Your task to perform on an android device: Show me popular games on the Play Store Image 0: 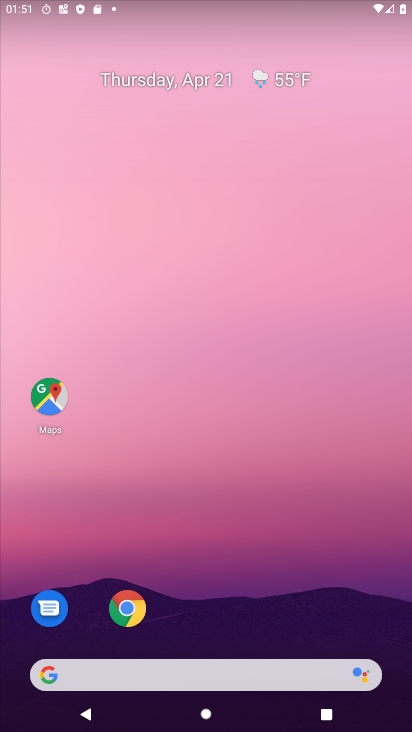
Step 0: drag from (197, 593) to (121, 187)
Your task to perform on an android device: Show me popular games on the Play Store Image 1: 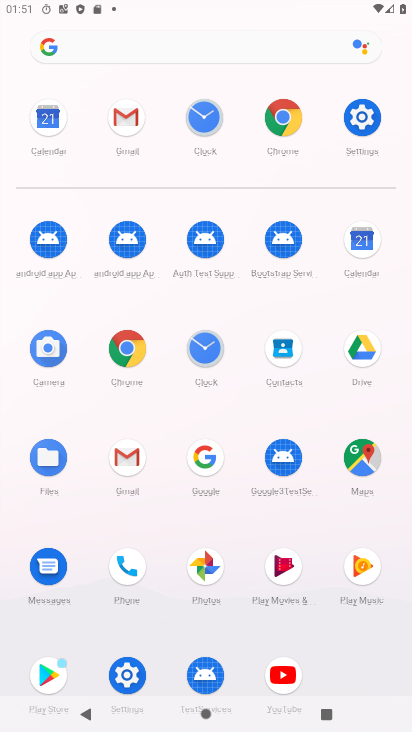
Step 1: click (50, 673)
Your task to perform on an android device: Show me popular games on the Play Store Image 2: 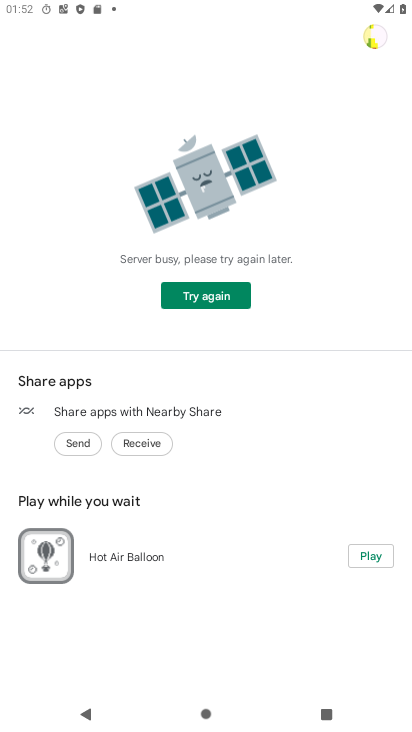
Step 2: press back button
Your task to perform on an android device: Show me popular games on the Play Store Image 3: 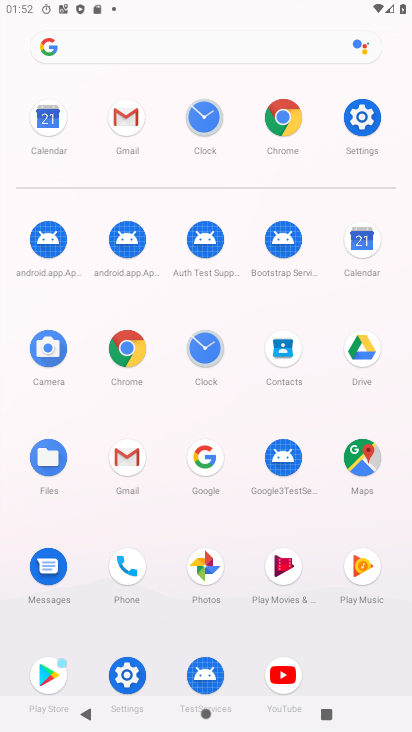
Step 3: click (55, 660)
Your task to perform on an android device: Show me popular games on the Play Store Image 4: 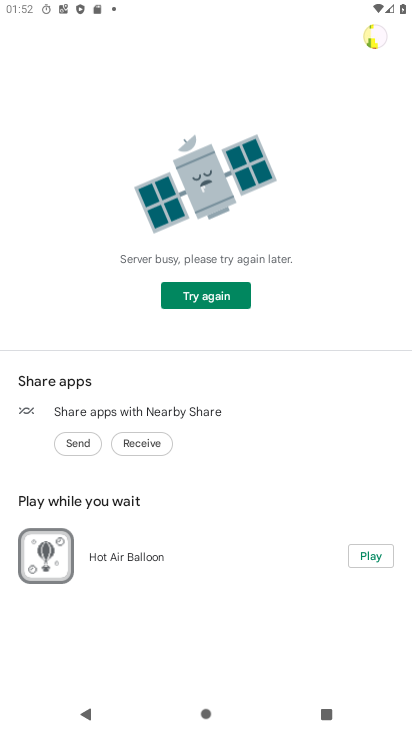
Step 4: click (221, 284)
Your task to perform on an android device: Show me popular games on the Play Store Image 5: 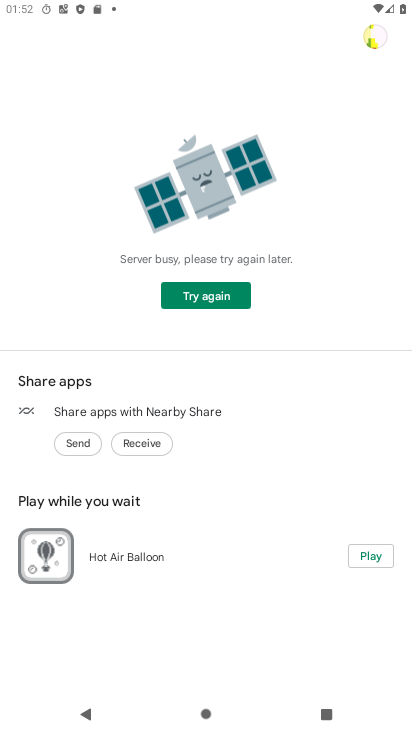
Step 5: task complete